Your task to perform on an android device: Search for the new Steph Curry shoes on Nike.com Image 0: 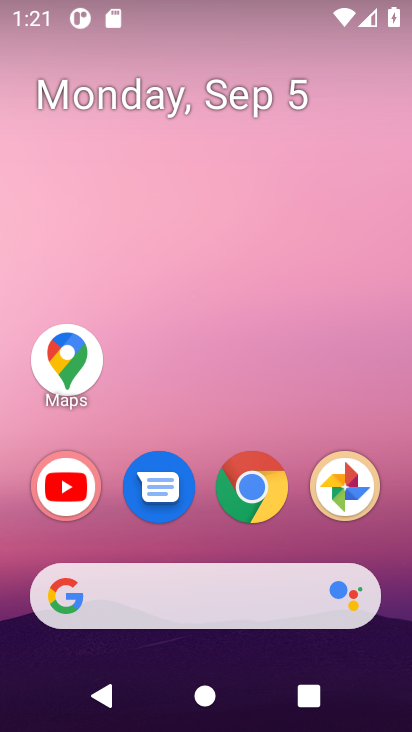
Step 0: click (242, 494)
Your task to perform on an android device: Search for the new Steph Curry shoes on Nike.com Image 1: 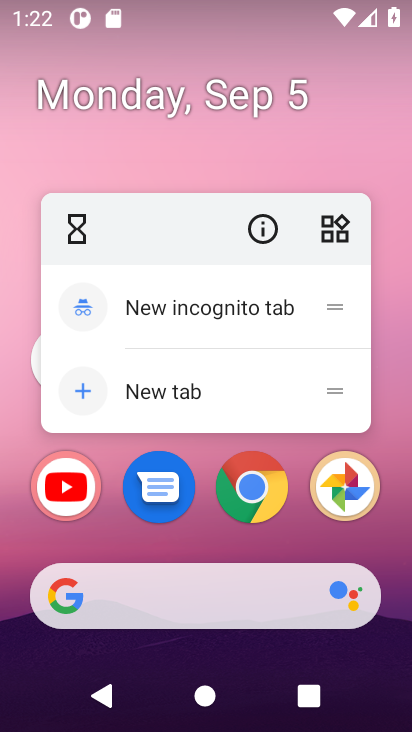
Step 1: click (242, 494)
Your task to perform on an android device: Search for the new Steph Curry shoes on Nike.com Image 2: 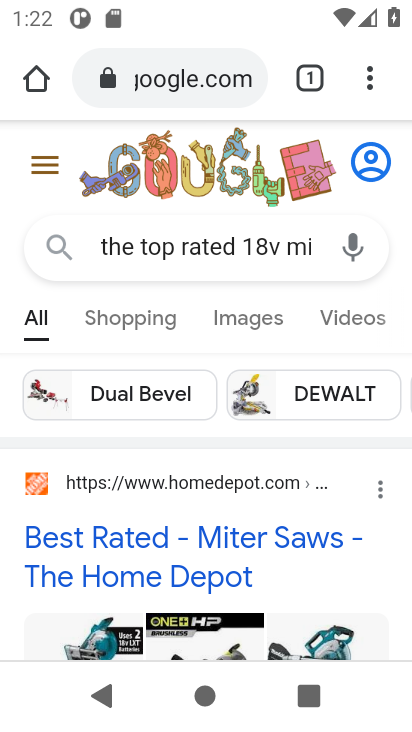
Step 2: click (228, 94)
Your task to perform on an android device: Search for the new Steph Curry shoes on Nike.com Image 3: 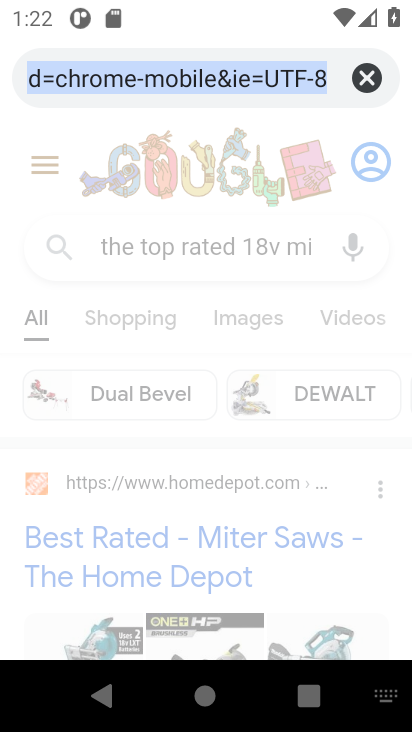
Step 3: click (360, 76)
Your task to perform on an android device: Search for the new Steph Curry shoes on Nike.com Image 4: 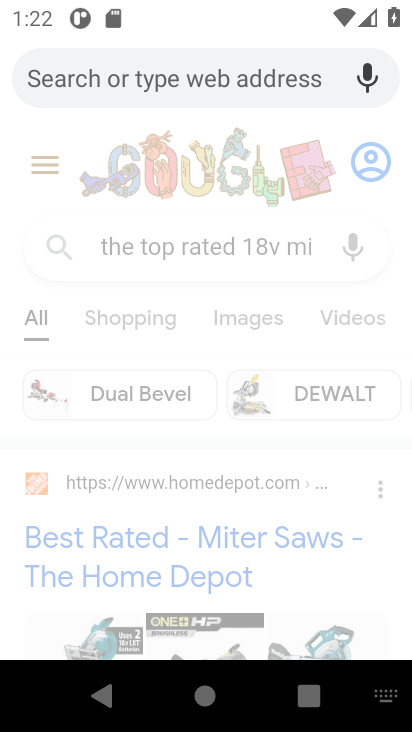
Step 4: type "the new Steph Curry shoes on Nike.com"
Your task to perform on an android device: Search for the new Steph Curry shoes on Nike.com Image 5: 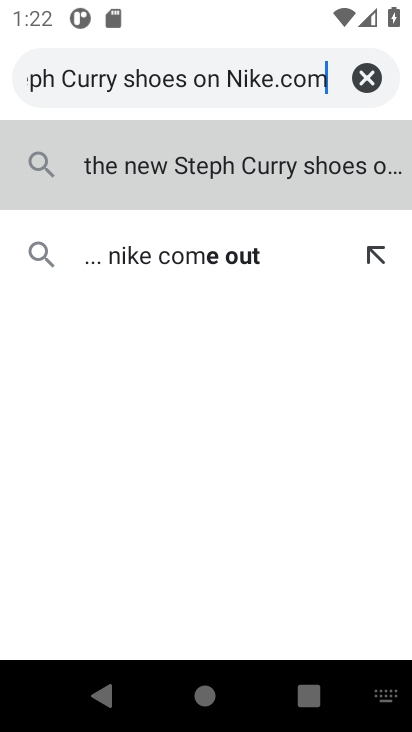
Step 5: click (280, 163)
Your task to perform on an android device: Search for the new Steph Curry shoes on Nike.com Image 6: 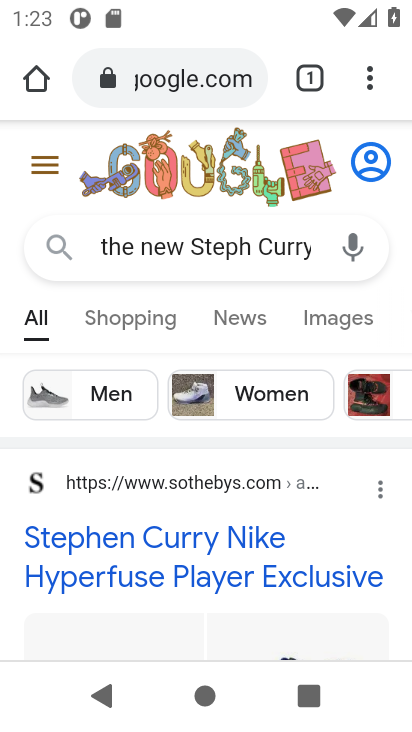
Step 6: task complete